Your task to perform on an android device: manage bookmarks in the chrome app Image 0: 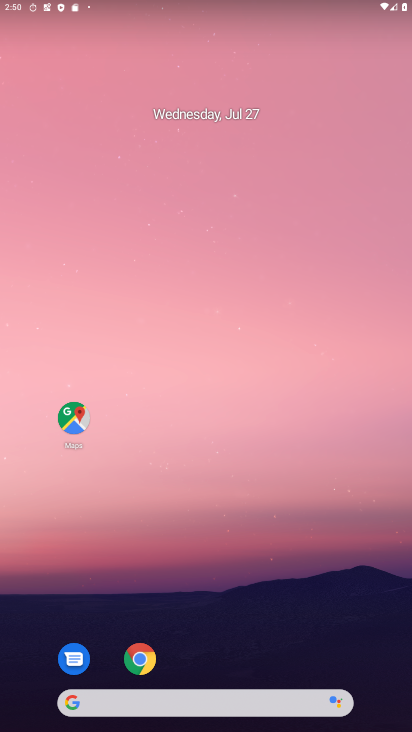
Step 0: drag from (219, 722) to (195, 20)
Your task to perform on an android device: manage bookmarks in the chrome app Image 1: 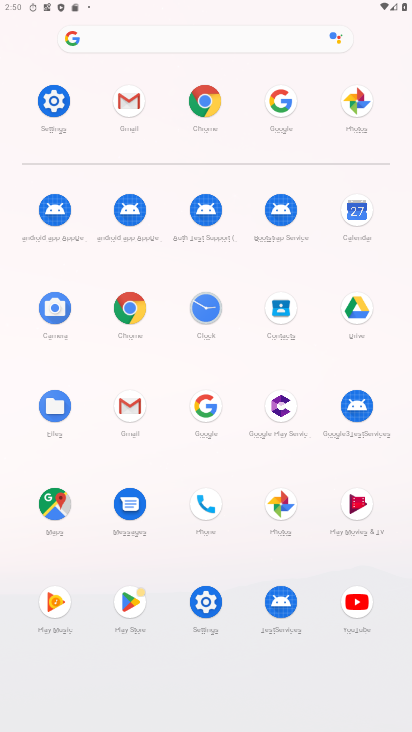
Step 1: click (134, 309)
Your task to perform on an android device: manage bookmarks in the chrome app Image 2: 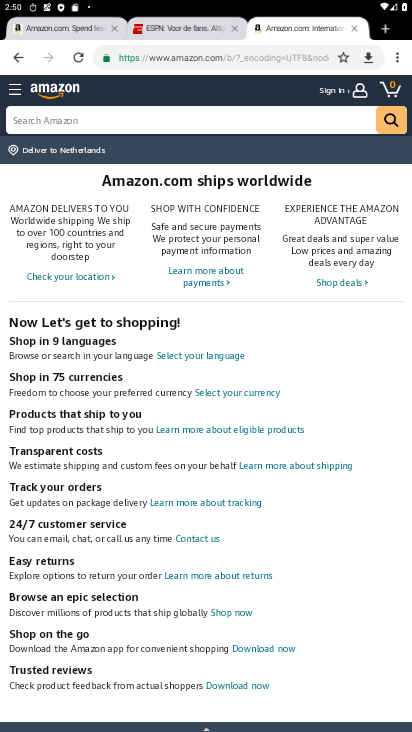
Step 2: click (399, 57)
Your task to perform on an android device: manage bookmarks in the chrome app Image 3: 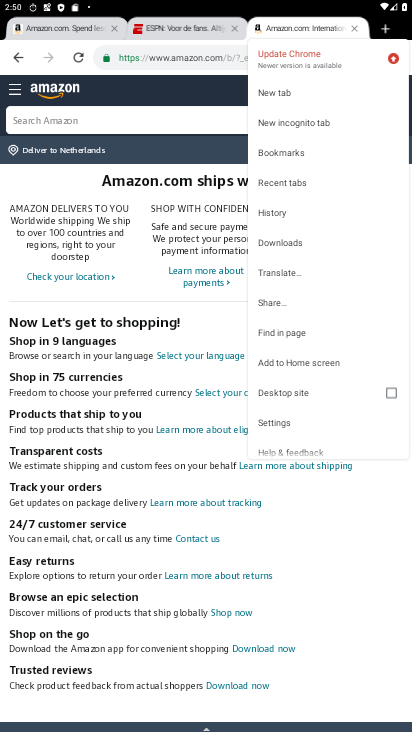
Step 3: click (289, 153)
Your task to perform on an android device: manage bookmarks in the chrome app Image 4: 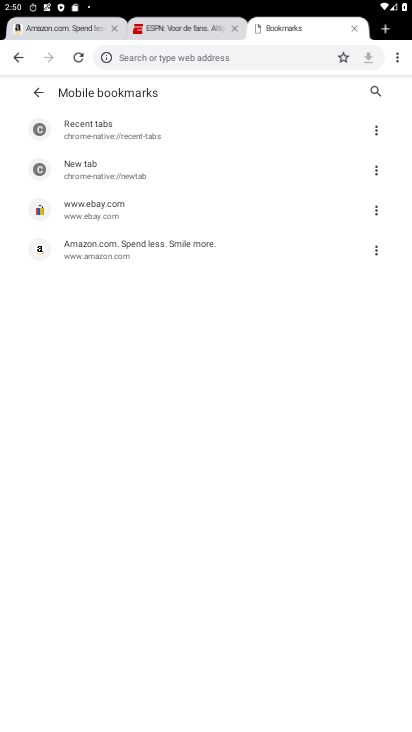
Step 4: click (377, 248)
Your task to perform on an android device: manage bookmarks in the chrome app Image 5: 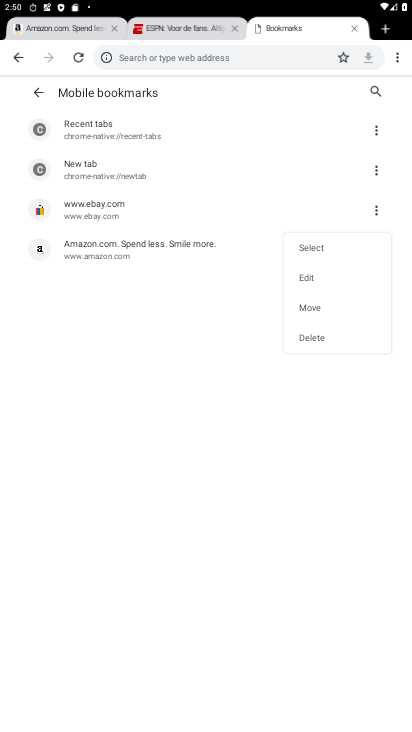
Step 5: click (313, 275)
Your task to perform on an android device: manage bookmarks in the chrome app Image 6: 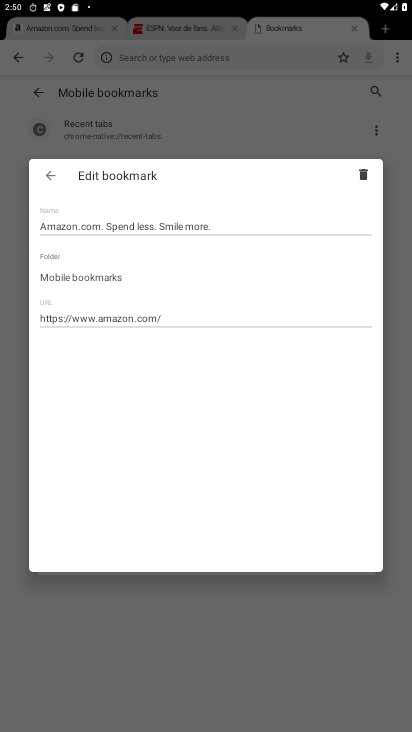
Step 6: click (171, 221)
Your task to perform on an android device: manage bookmarks in the chrome app Image 7: 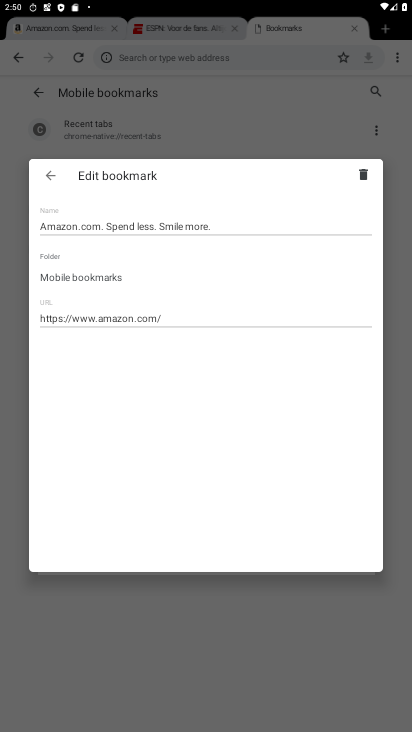
Step 7: click (171, 221)
Your task to perform on an android device: manage bookmarks in the chrome app Image 8: 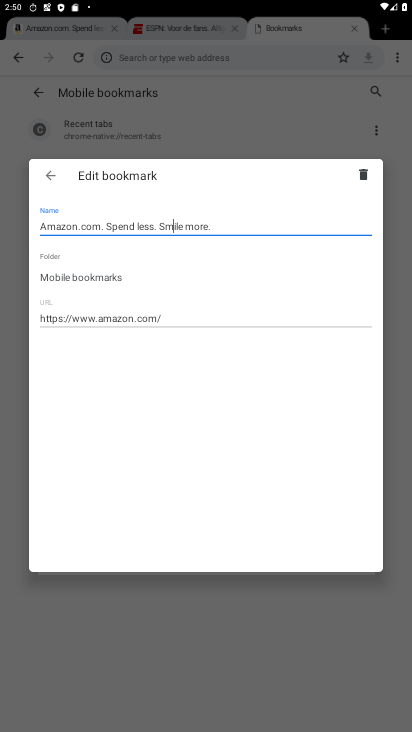
Step 8: click (171, 221)
Your task to perform on an android device: manage bookmarks in the chrome app Image 9: 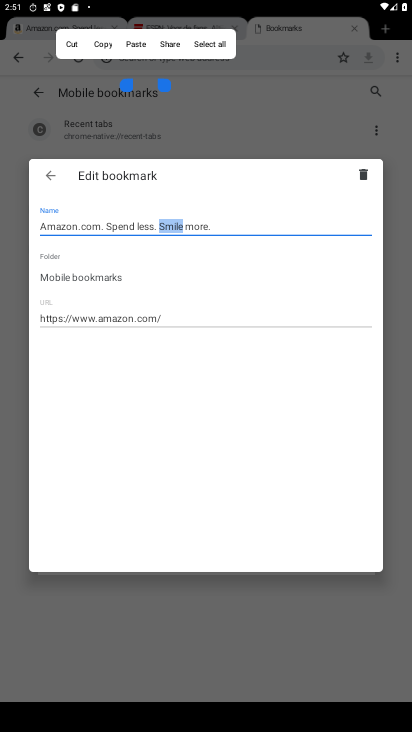
Step 9: click (72, 42)
Your task to perform on an android device: manage bookmarks in the chrome app Image 10: 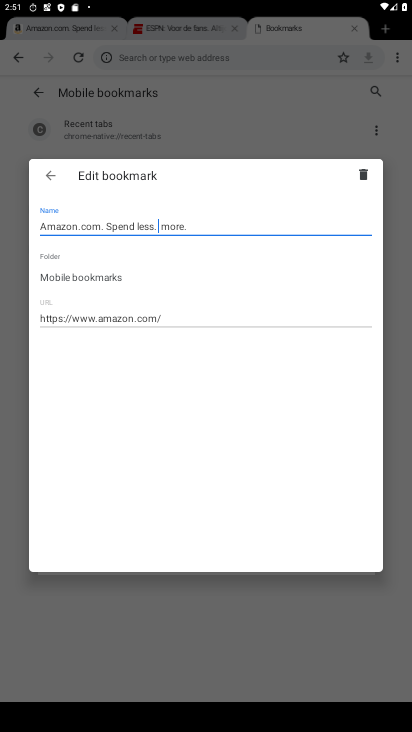
Step 10: click (51, 176)
Your task to perform on an android device: manage bookmarks in the chrome app Image 11: 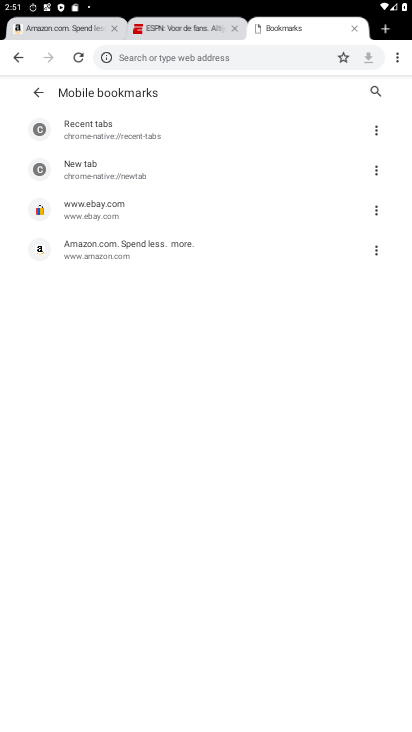
Step 11: task complete